Your task to perform on an android device: open chrome privacy settings Image 0: 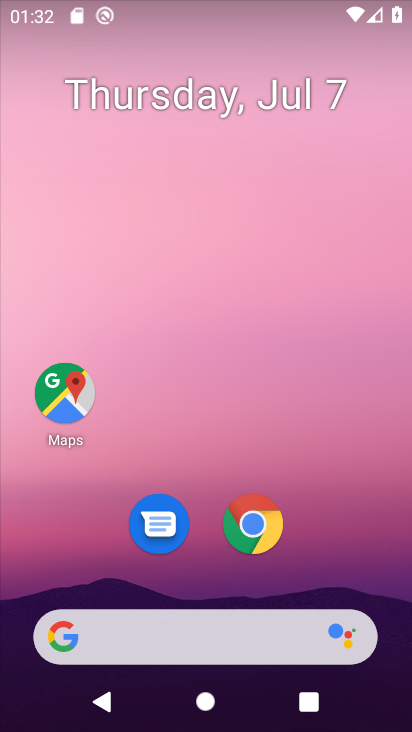
Step 0: click (255, 514)
Your task to perform on an android device: open chrome privacy settings Image 1: 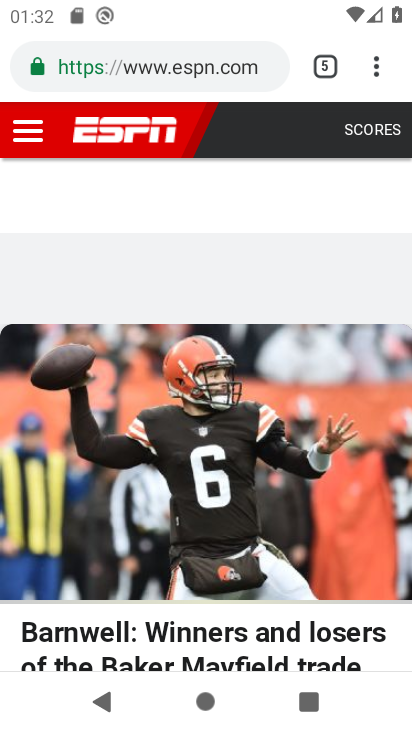
Step 1: click (374, 63)
Your task to perform on an android device: open chrome privacy settings Image 2: 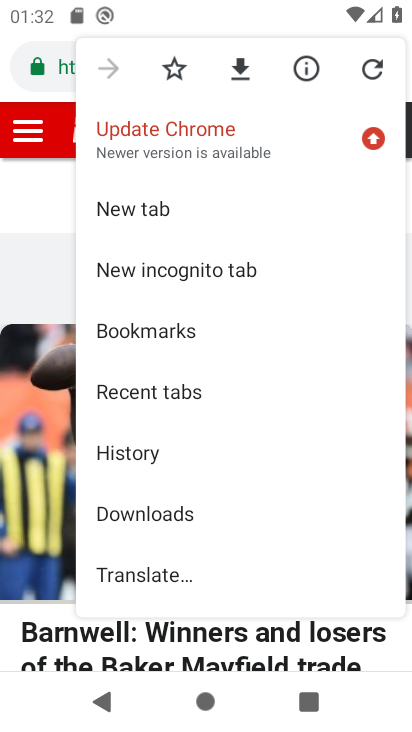
Step 2: drag from (229, 540) to (231, 69)
Your task to perform on an android device: open chrome privacy settings Image 3: 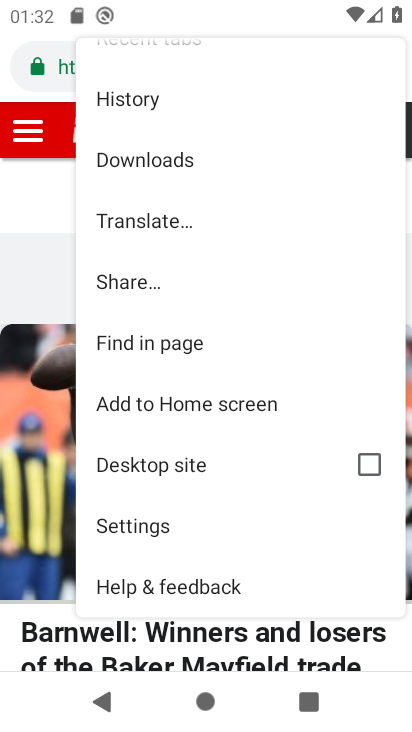
Step 3: click (148, 518)
Your task to perform on an android device: open chrome privacy settings Image 4: 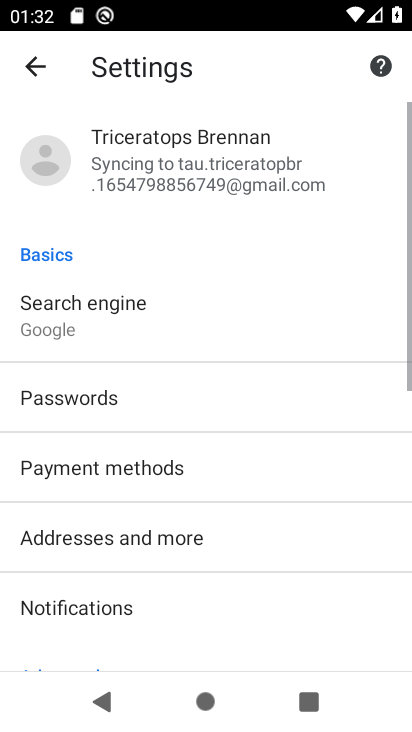
Step 4: drag from (187, 421) to (148, 76)
Your task to perform on an android device: open chrome privacy settings Image 5: 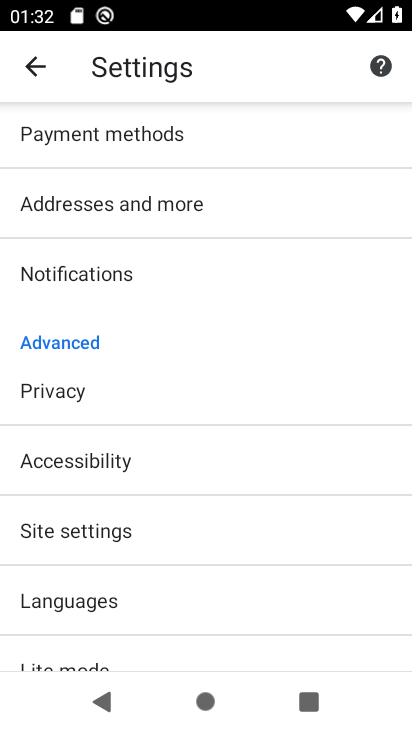
Step 5: click (62, 383)
Your task to perform on an android device: open chrome privacy settings Image 6: 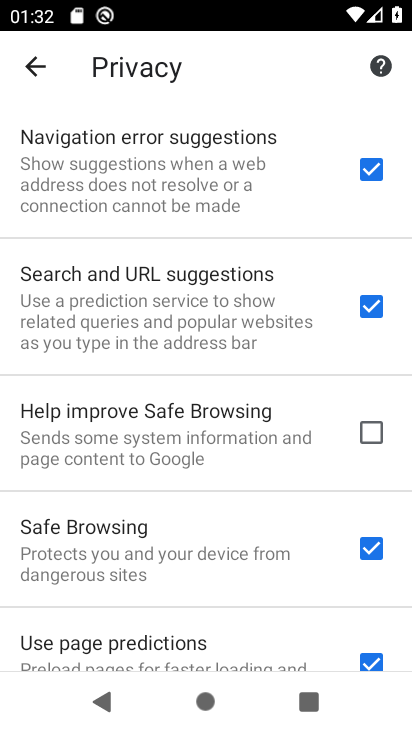
Step 6: task complete